Your task to perform on an android device: Open CNN.com Image 0: 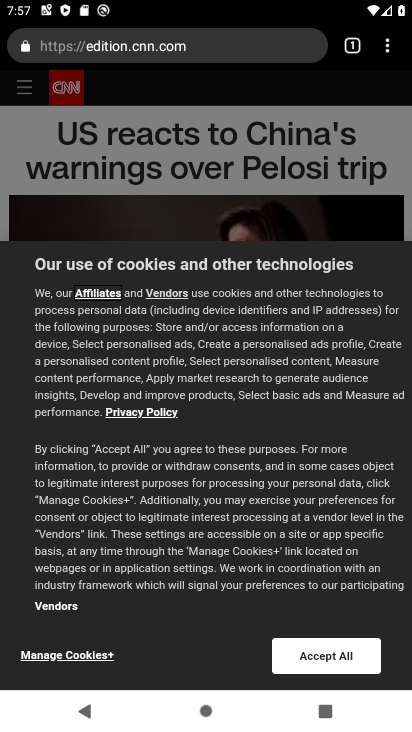
Step 0: press home button
Your task to perform on an android device: Open CNN.com Image 1: 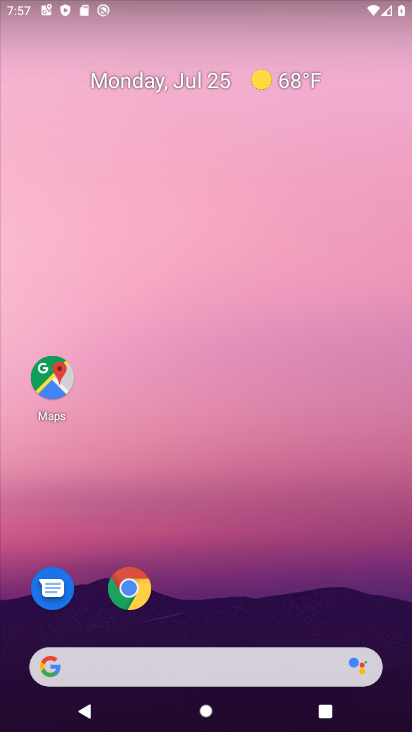
Step 1: drag from (359, 554) to (353, 60)
Your task to perform on an android device: Open CNN.com Image 2: 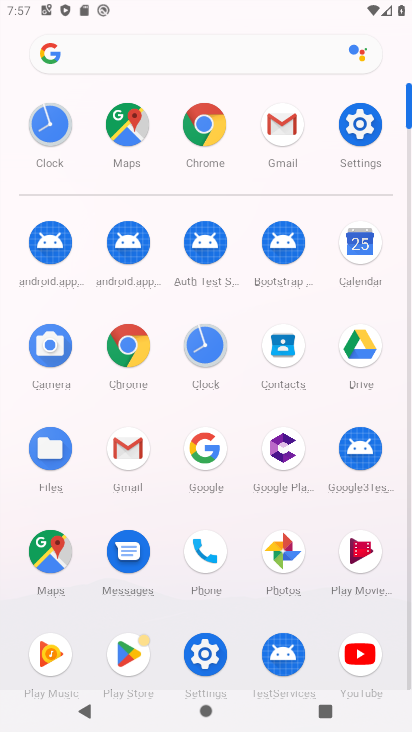
Step 2: click (211, 129)
Your task to perform on an android device: Open CNN.com Image 3: 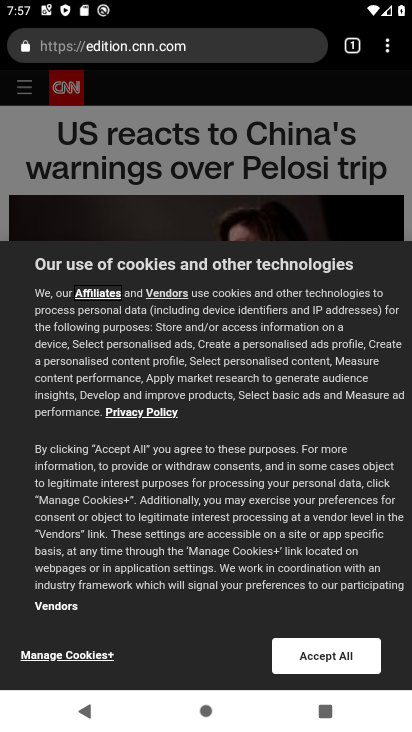
Step 3: click (261, 47)
Your task to perform on an android device: Open CNN.com Image 4: 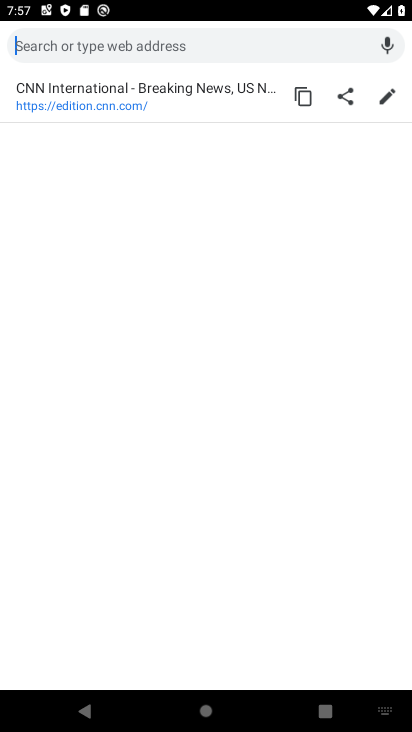
Step 4: type "cnn.com"
Your task to perform on an android device: Open CNN.com Image 5: 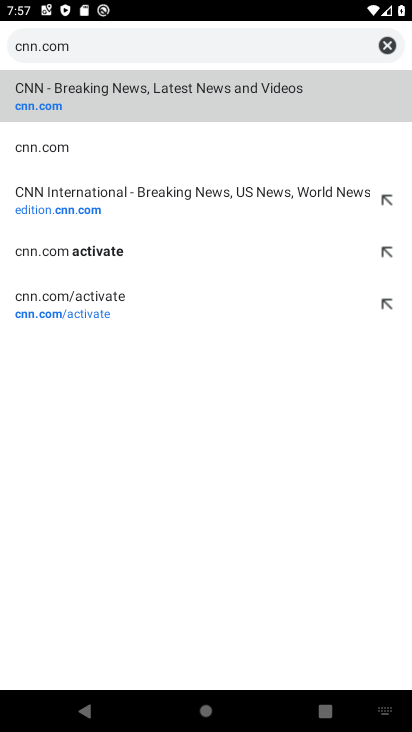
Step 5: click (345, 97)
Your task to perform on an android device: Open CNN.com Image 6: 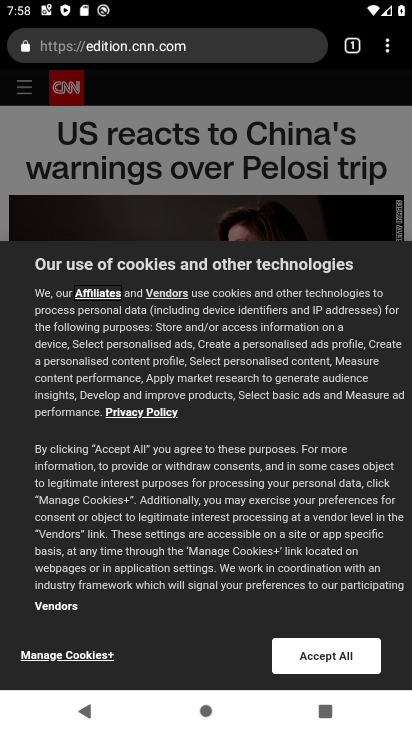
Step 6: task complete